Your task to perform on an android device: turn notification dots on Image 0: 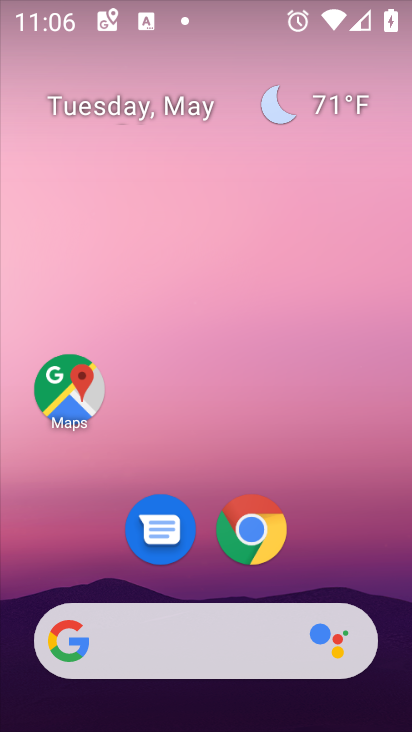
Step 0: drag from (210, 586) to (258, 8)
Your task to perform on an android device: turn notification dots on Image 1: 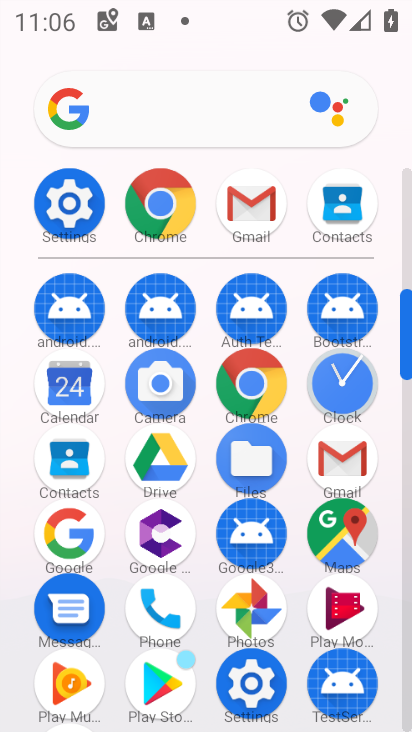
Step 1: click (89, 200)
Your task to perform on an android device: turn notification dots on Image 2: 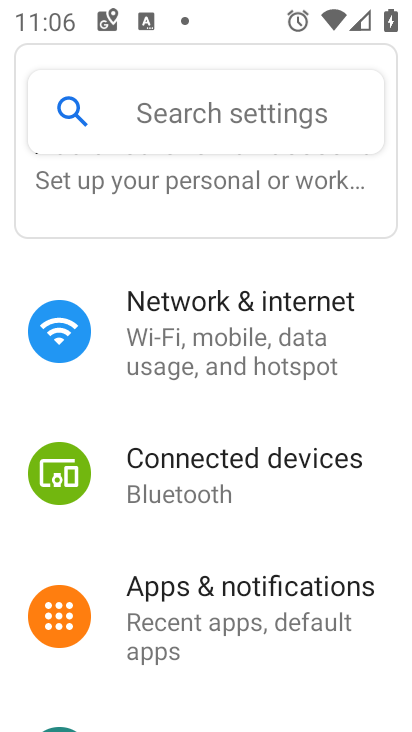
Step 2: drag from (189, 580) to (197, 274)
Your task to perform on an android device: turn notification dots on Image 3: 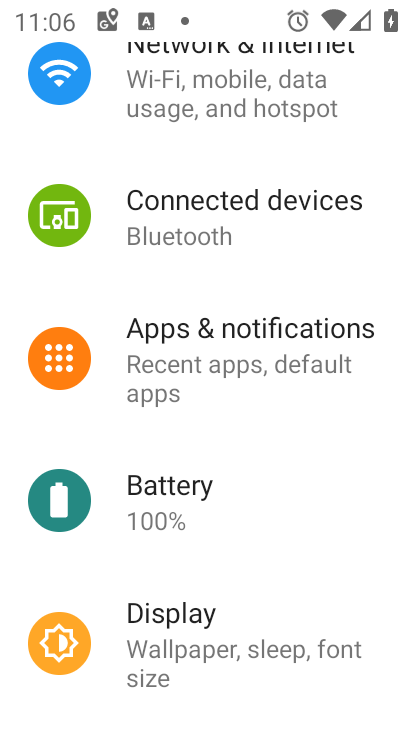
Step 3: click (230, 334)
Your task to perform on an android device: turn notification dots on Image 4: 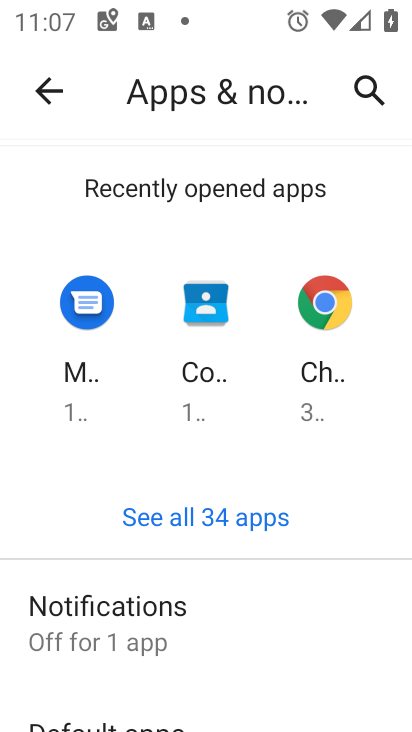
Step 4: click (182, 625)
Your task to perform on an android device: turn notification dots on Image 5: 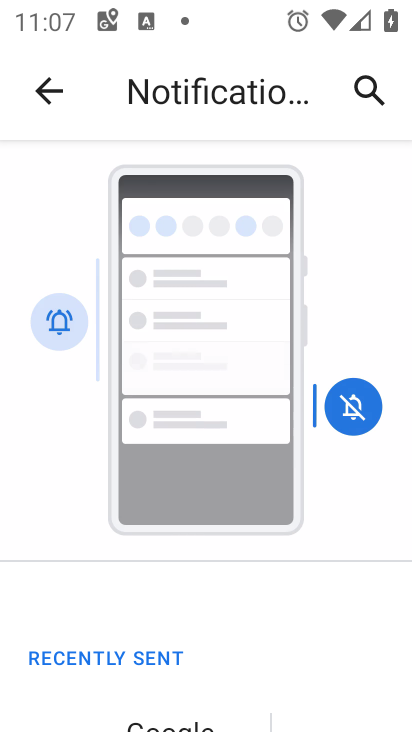
Step 5: drag from (252, 612) to (119, 134)
Your task to perform on an android device: turn notification dots on Image 6: 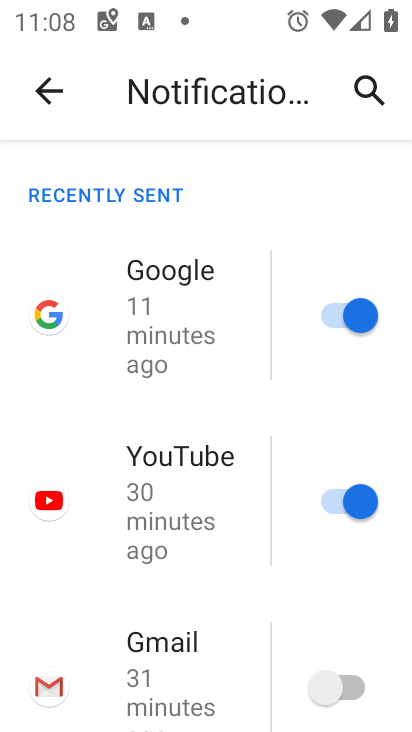
Step 6: drag from (229, 533) to (77, 16)
Your task to perform on an android device: turn notification dots on Image 7: 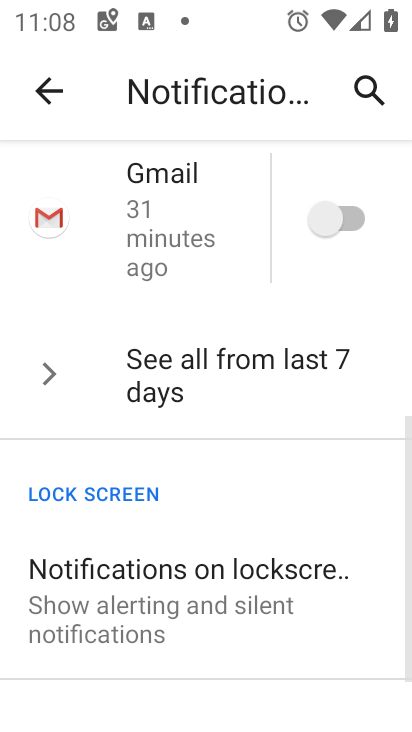
Step 7: drag from (202, 572) to (141, 7)
Your task to perform on an android device: turn notification dots on Image 8: 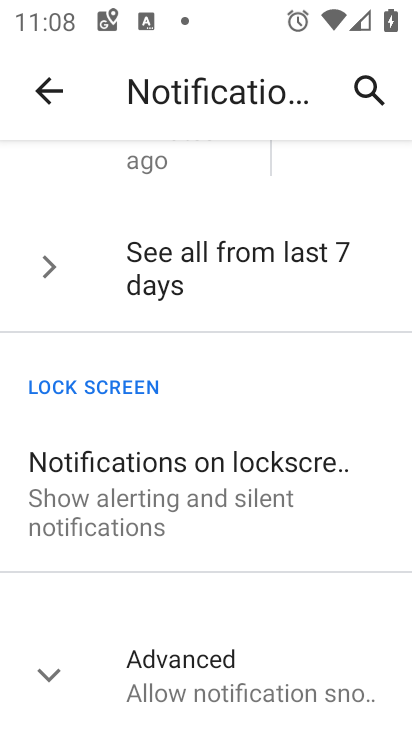
Step 8: click (180, 695)
Your task to perform on an android device: turn notification dots on Image 9: 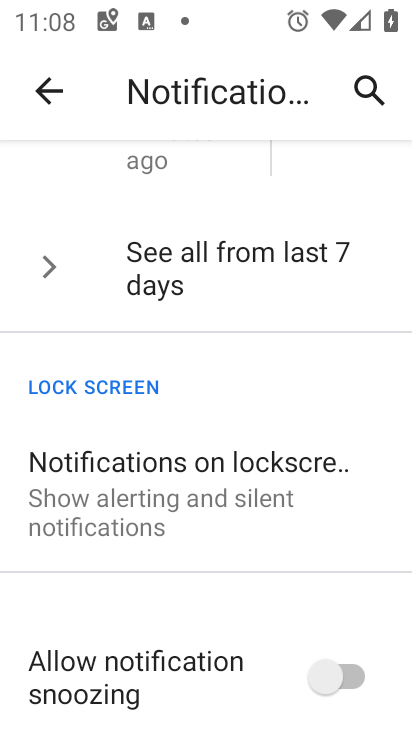
Step 9: task complete